Your task to perform on an android device: Open Yahoo.com Image 0: 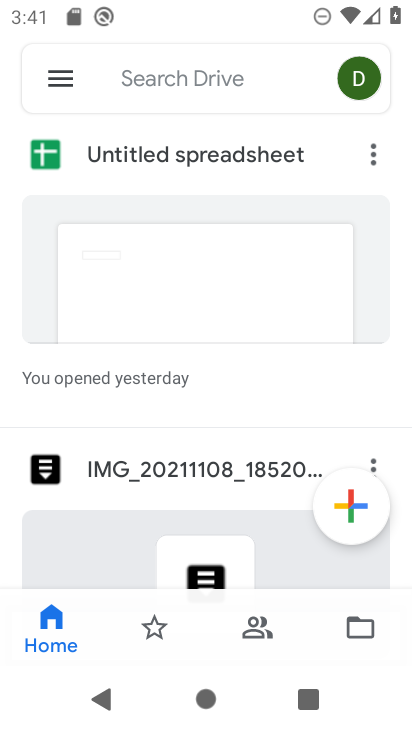
Step 0: press back button
Your task to perform on an android device: Open Yahoo.com Image 1: 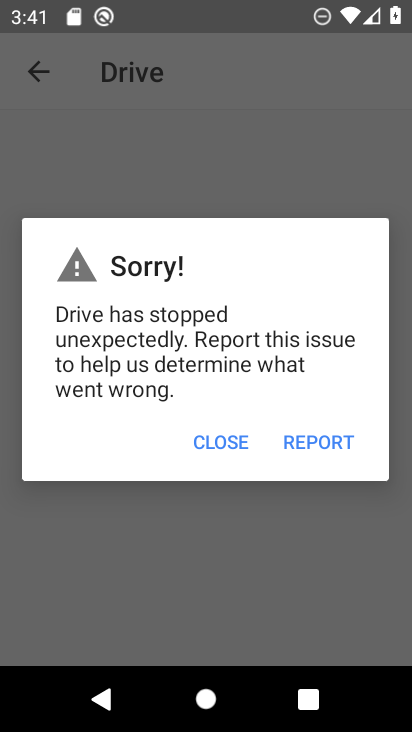
Step 1: press home button
Your task to perform on an android device: Open Yahoo.com Image 2: 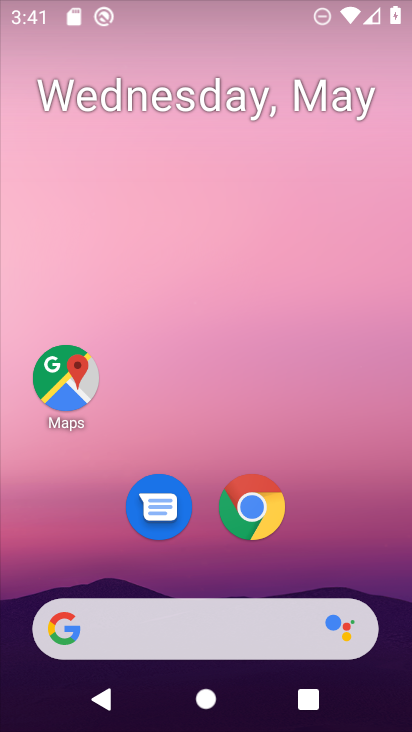
Step 2: click (249, 508)
Your task to perform on an android device: Open Yahoo.com Image 3: 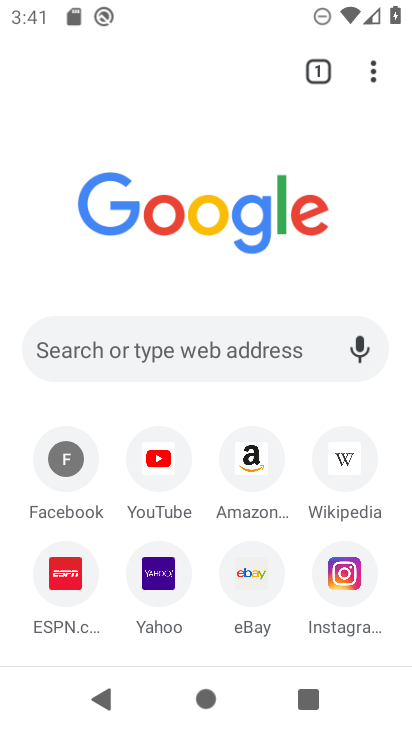
Step 3: click (154, 572)
Your task to perform on an android device: Open Yahoo.com Image 4: 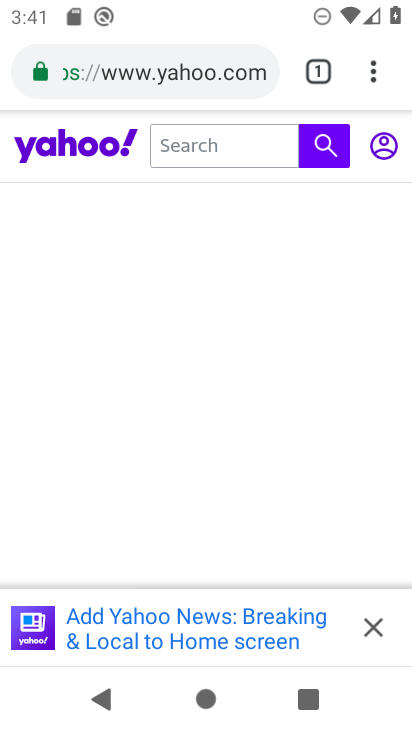
Step 4: task complete